Your task to perform on an android device: open a bookmark in the chrome app Image 0: 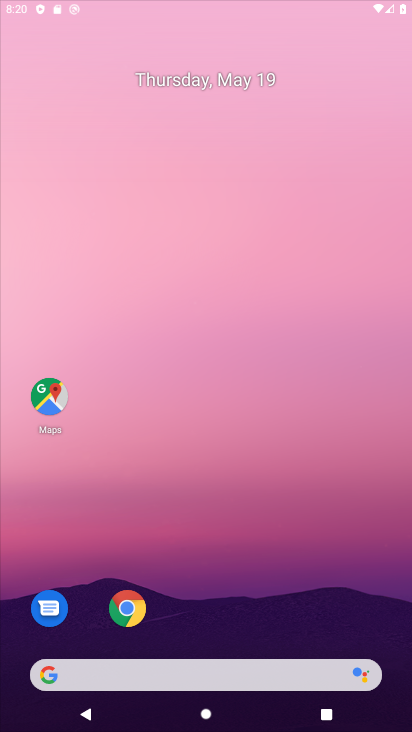
Step 0: click (25, 38)
Your task to perform on an android device: open a bookmark in the chrome app Image 1: 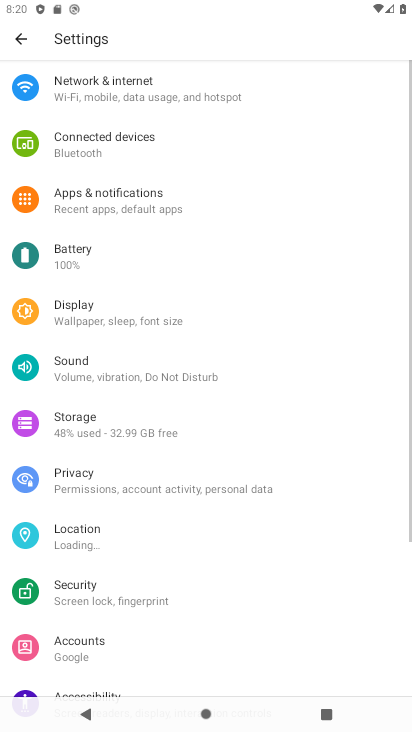
Step 1: press back button
Your task to perform on an android device: open a bookmark in the chrome app Image 2: 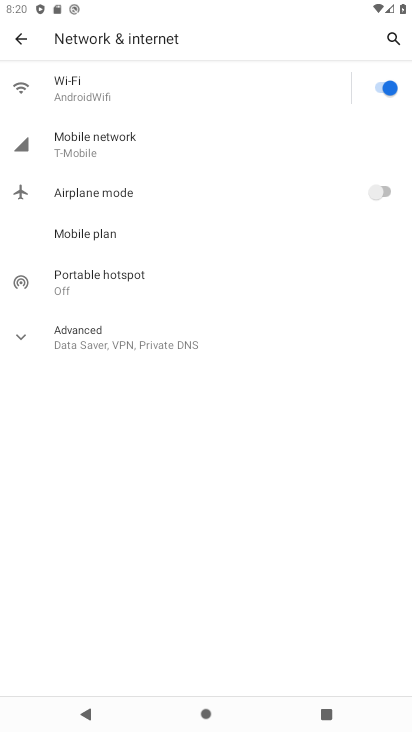
Step 2: press home button
Your task to perform on an android device: open a bookmark in the chrome app Image 3: 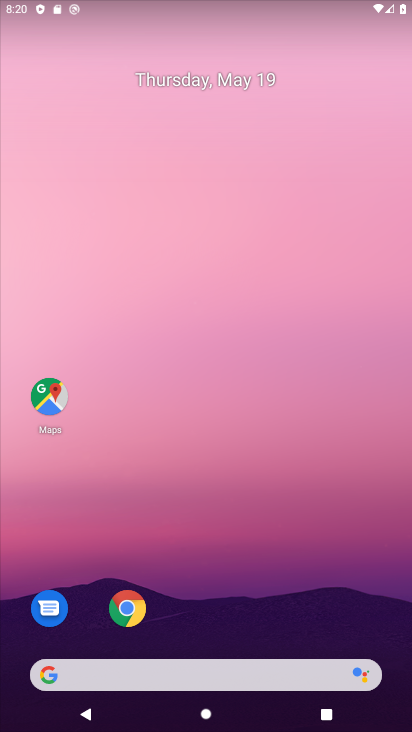
Step 3: click (223, 291)
Your task to perform on an android device: open a bookmark in the chrome app Image 4: 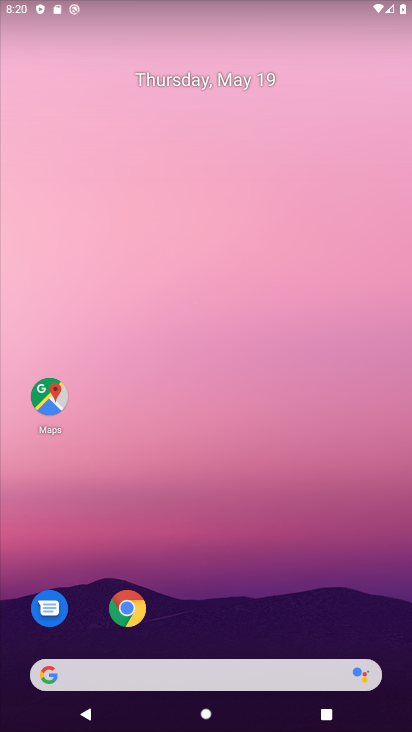
Step 4: drag from (292, 660) to (261, 93)
Your task to perform on an android device: open a bookmark in the chrome app Image 5: 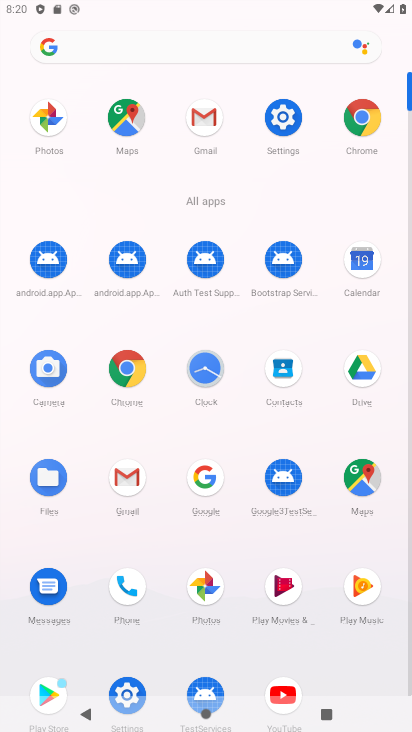
Step 5: click (361, 125)
Your task to perform on an android device: open a bookmark in the chrome app Image 6: 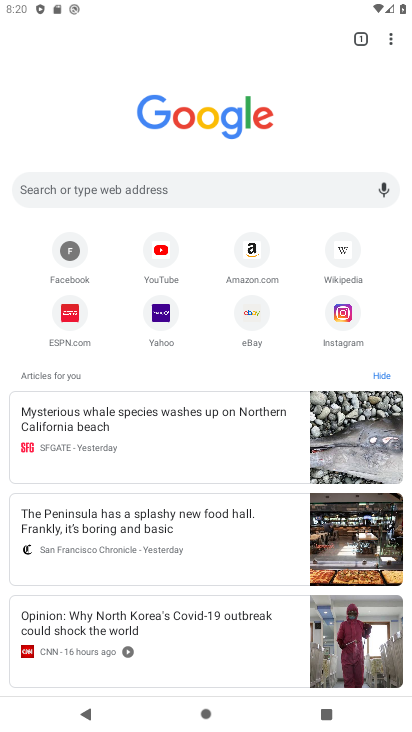
Step 6: click (393, 42)
Your task to perform on an android device: open a bookmark in the chrome app Image 7: 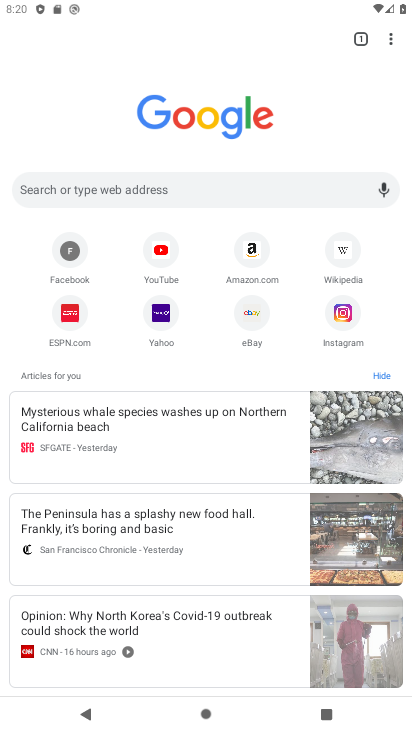
Step 7: click (257, 151)
Your task to perform on an android device: open a bookmark in the chrome app Image 8: 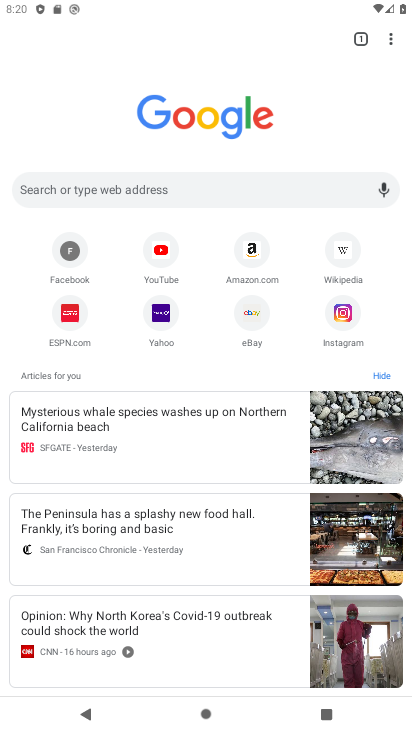
Step 8: click (391, 41)
Your task to perform on an android device: open a bookmark in the chrome app Image 9: 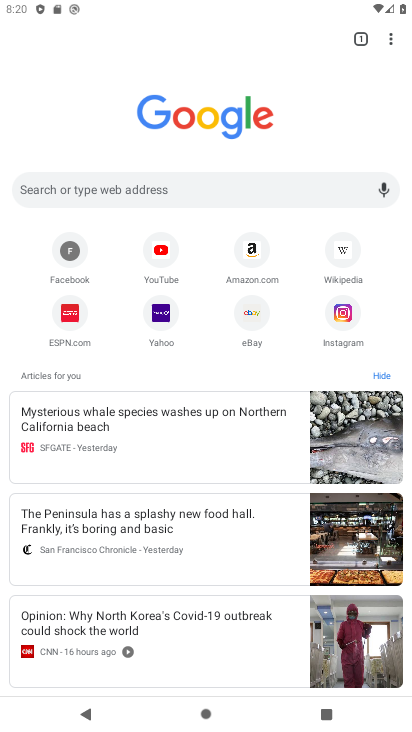
Step 9: drag from (390, 37) to (256, 151)
Your task to perform on an android device: open a bookmark in the chrome app Image 10: 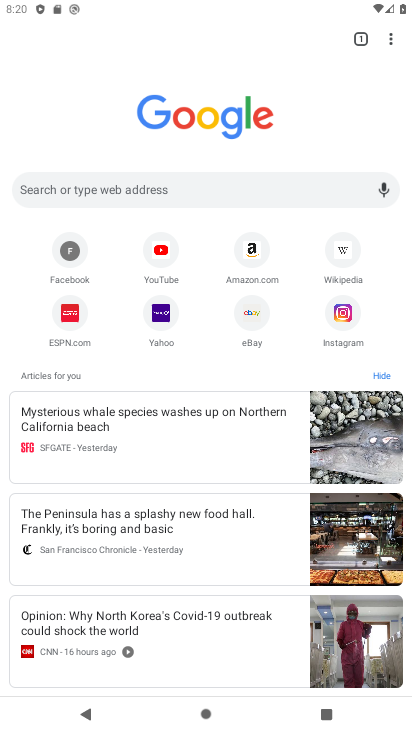
Step 10: click (256, 151)
Your task to perform on an android device: open a bookmark in the chrome app Image 11: 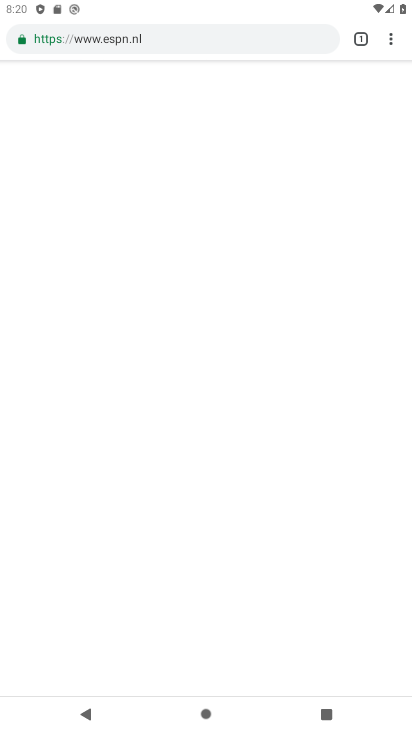
Step 11: task complete